Your task to perform on an android device: turn on airplane mode Image 0: 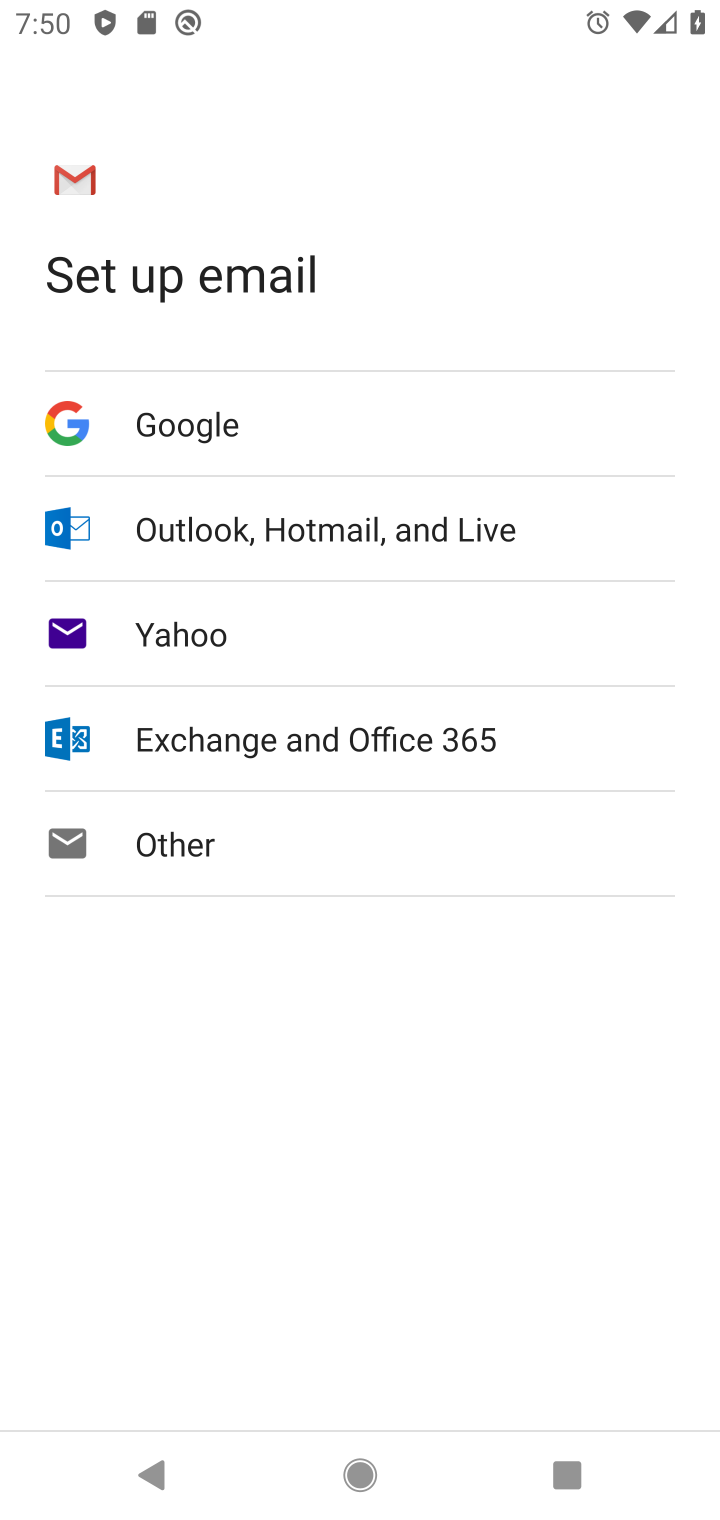
Step 0: press home button
Your task to perform on an android device: turn on airplane mode Image 1: 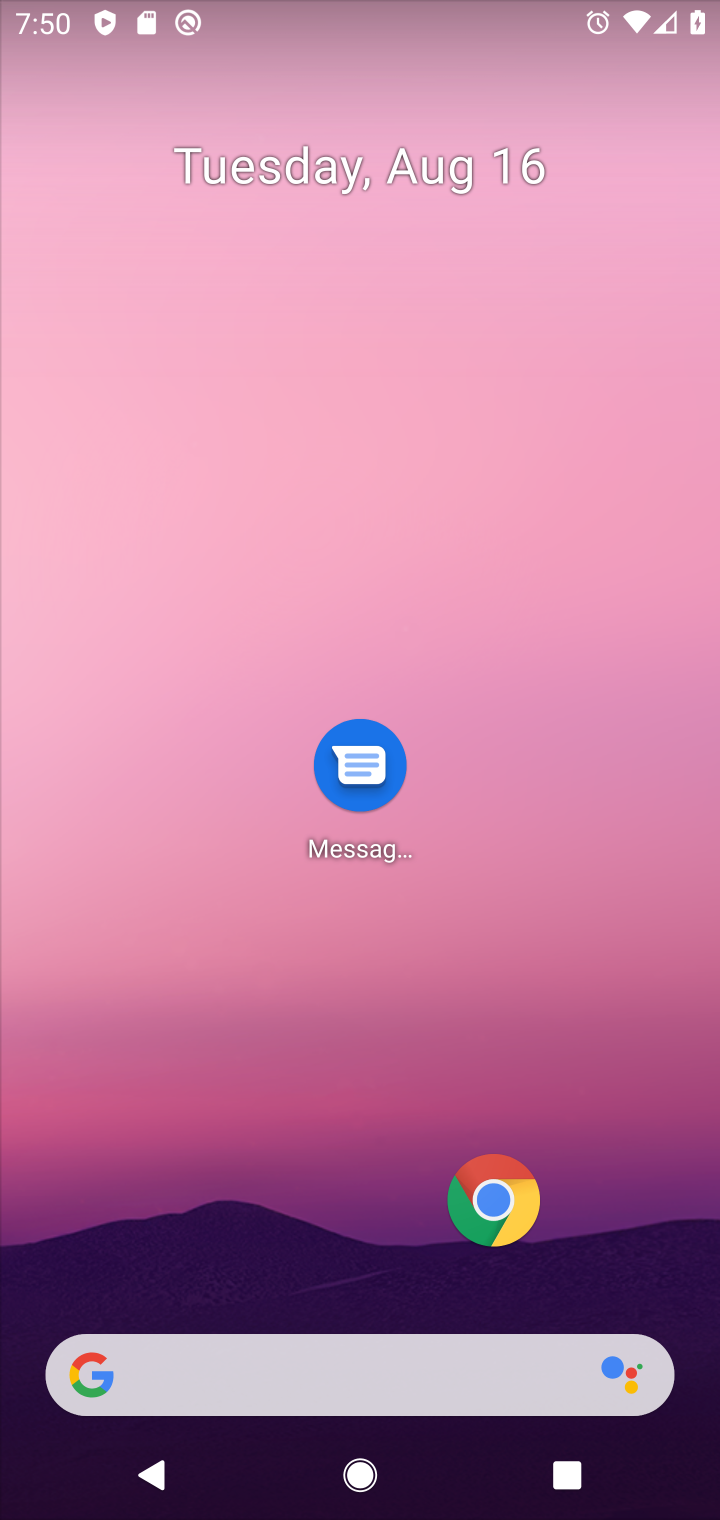
Step 1: drag from (548, 892) to (714, 53)
Your task to perform on an android device: turn on airplane mode Image 2: 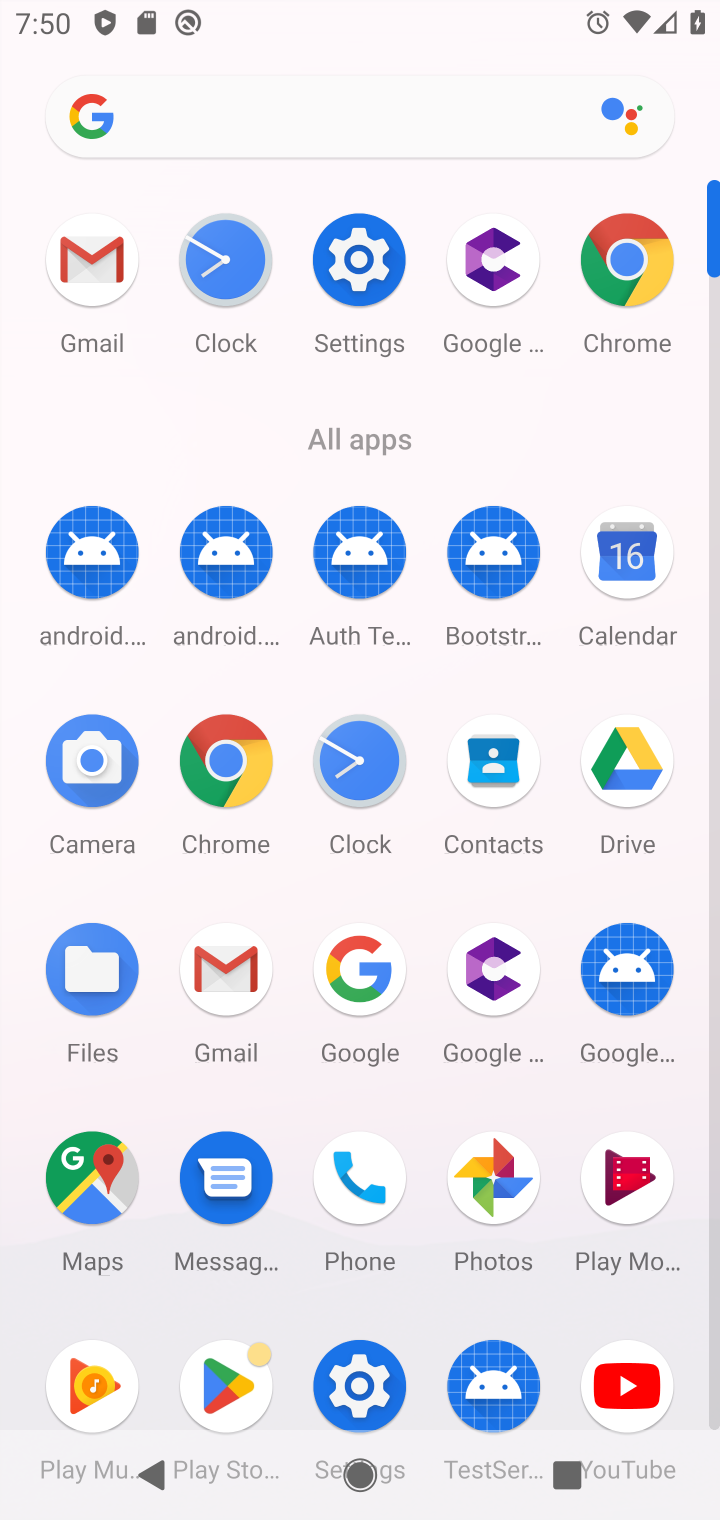
Step 2: click (368, 1414)
Your task to perform on an android device: turn on airplane mode Image 3: 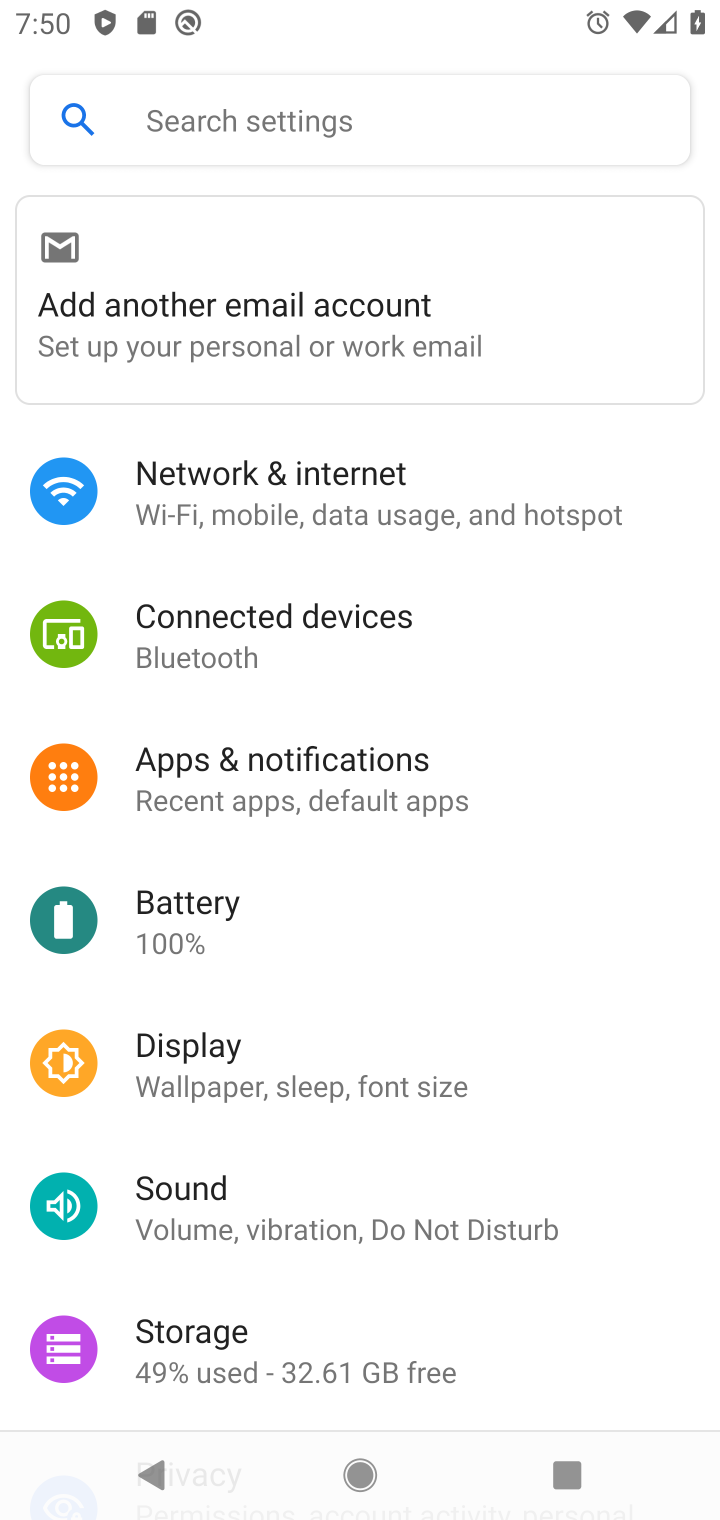
Step 3: click (363, 515)
Your task to perform on an android device: turn on airplane mode Image 4: 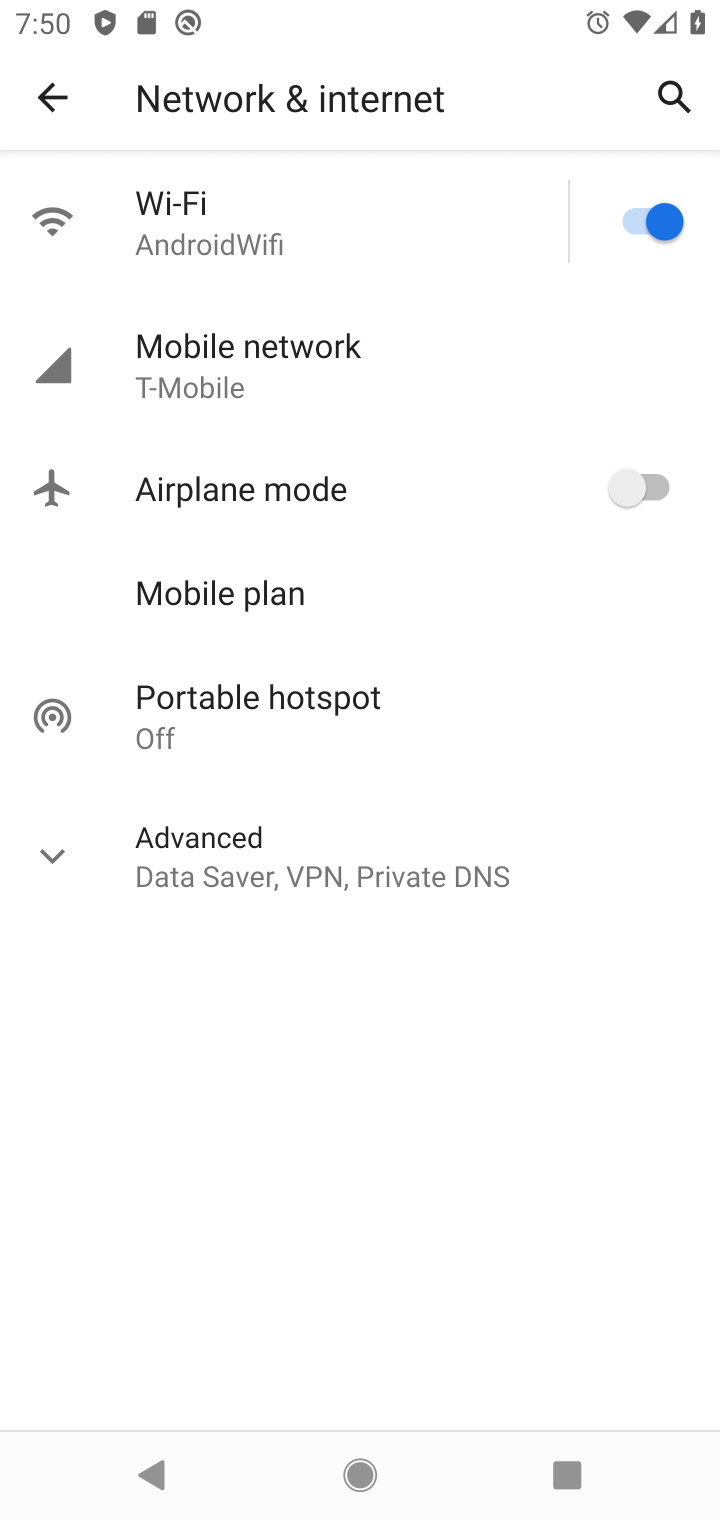
Step 4: click (636, 490)
Your task to perform on an android device: turn on airplane mode Image 5: 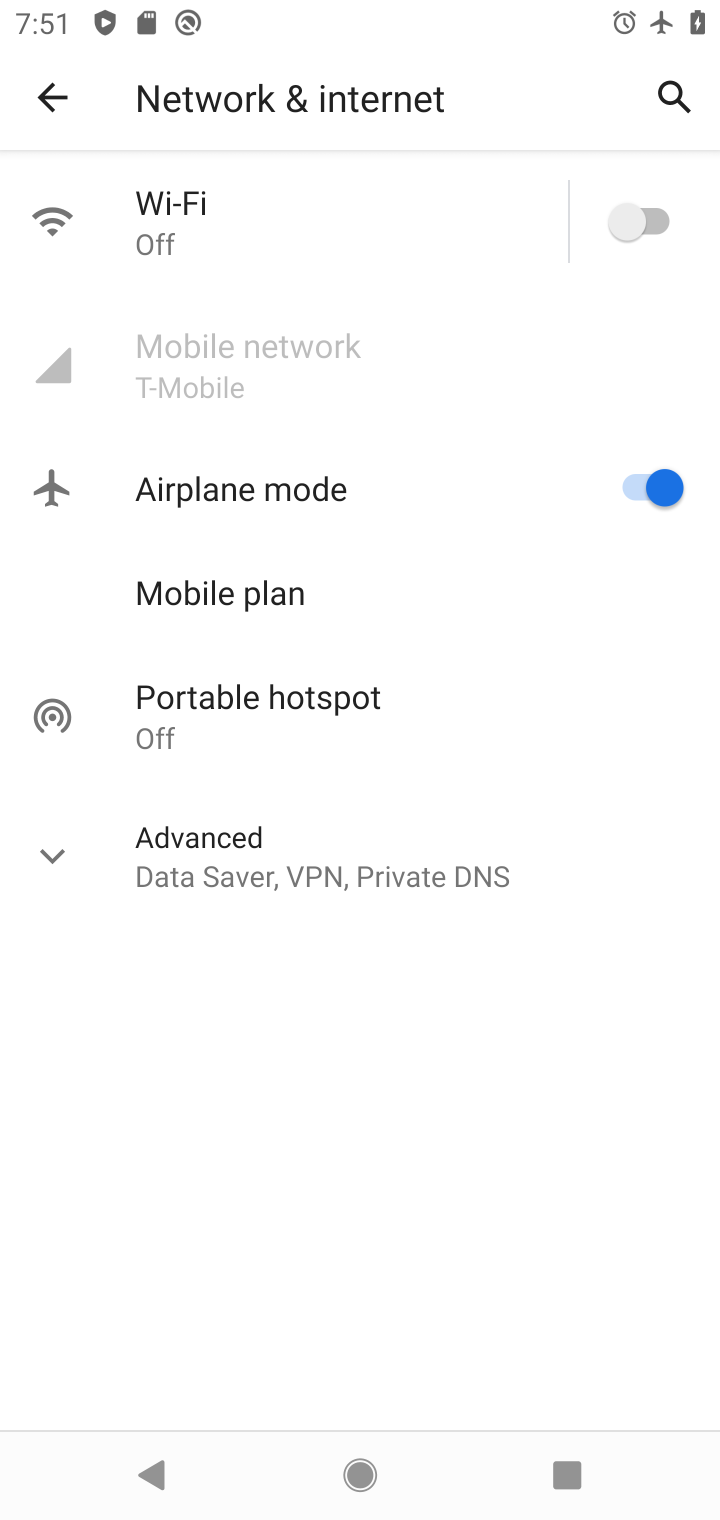
Step 5: task complete